Your task to perform on an android device: open wifi settings Image 0: 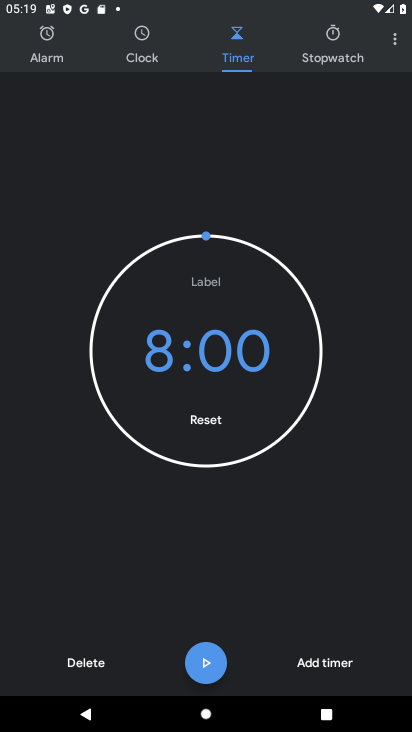
Step 0: click (115, 615)
Your task to perform on an android device: open wifi settings Image 1: 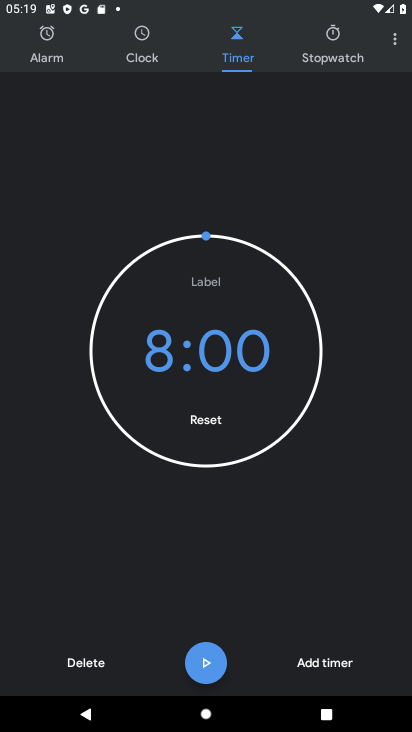
Step 1: press home button
Your task to perform on an android device: open wifi settings Image 2: 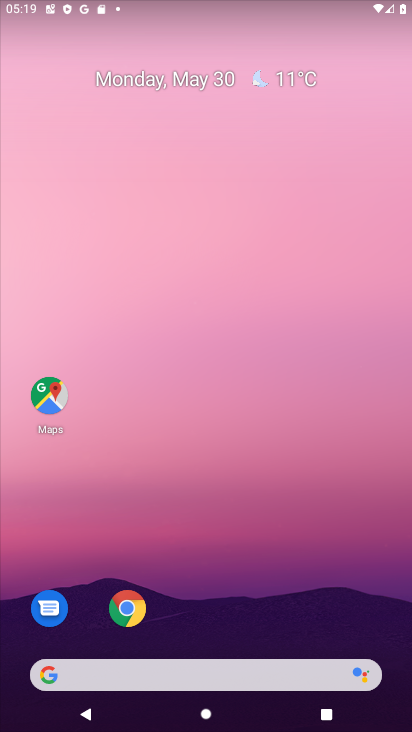
Step 2: drag from (205, 646) to (222, 252)
Your task to perform on an android device: open wifi settings Image 3: 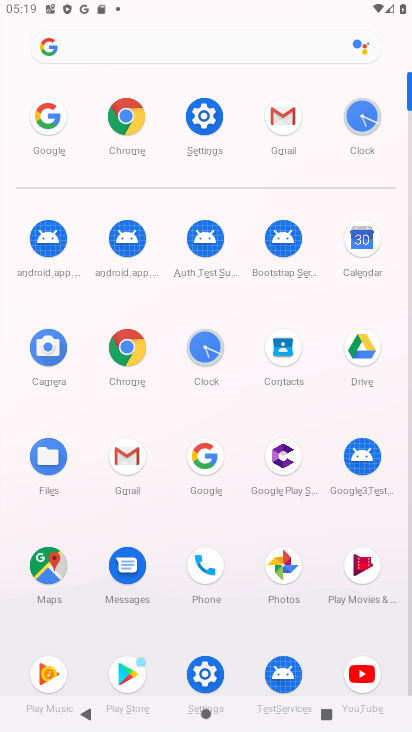
Step 3: click (214, 106)
Your task to perform on an android device: open wifi settings Image 4: 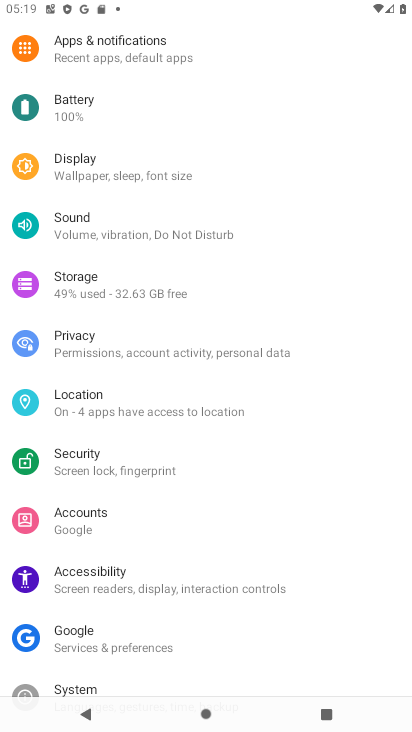
Step 4: drag from (143, 47) to (173, 525)
Your task to perform on an android device: open wifi settings Image 5: 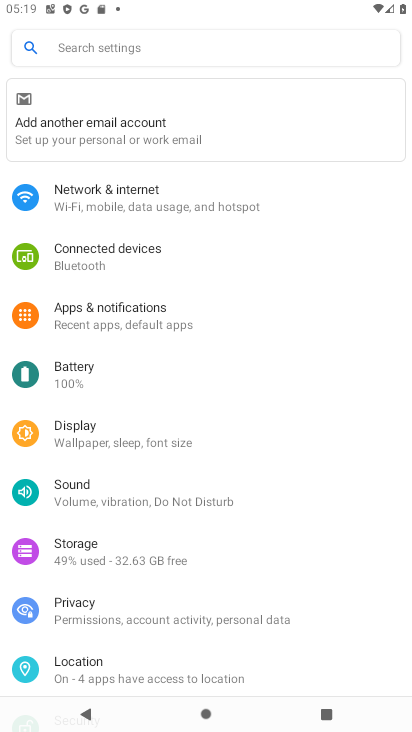
Step 5: click (135, 202)
Your task to perform on an android device: open wifi settings Image 6: 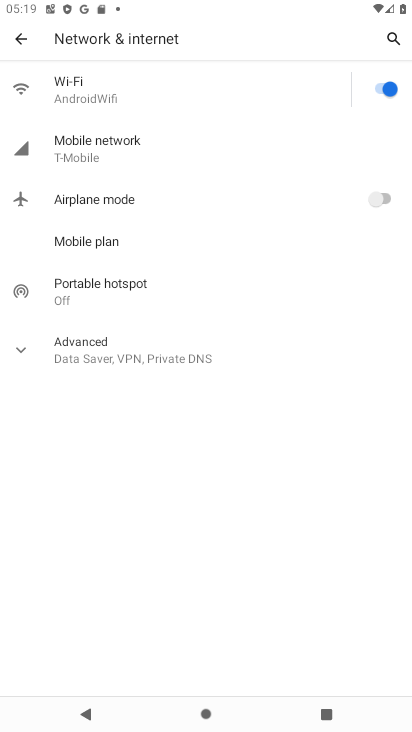
Step 6: click (120, 104)
Your task to perform on an android device: open wifi settings Image 7: 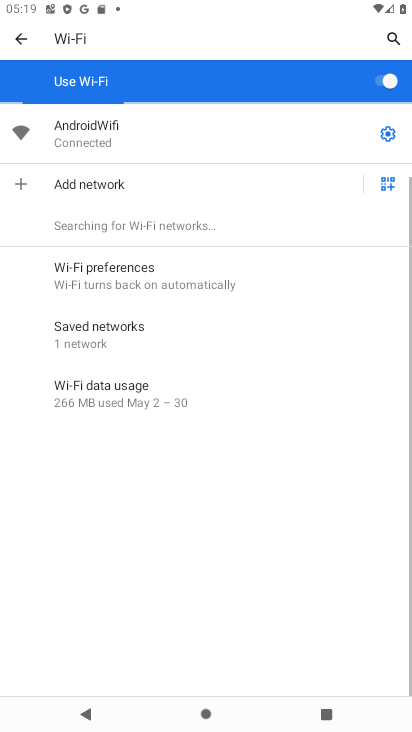
Step 7: click (387, 131)
Your task to perform on an android device: open wifi settings Image 8: 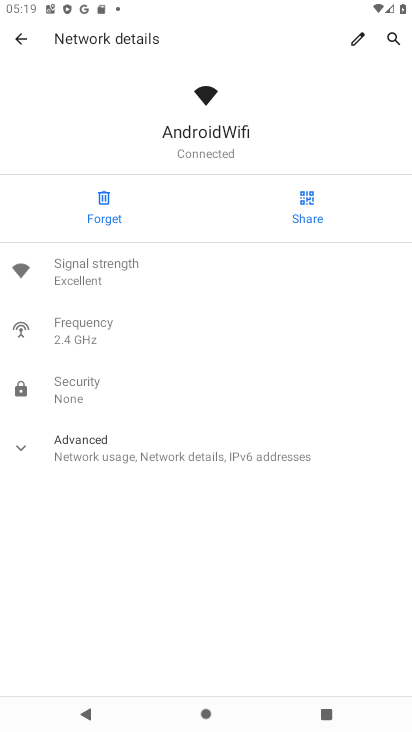
Step 8: click (128, 454)
Your task to perform on an android device: open wifi settings Image 9: 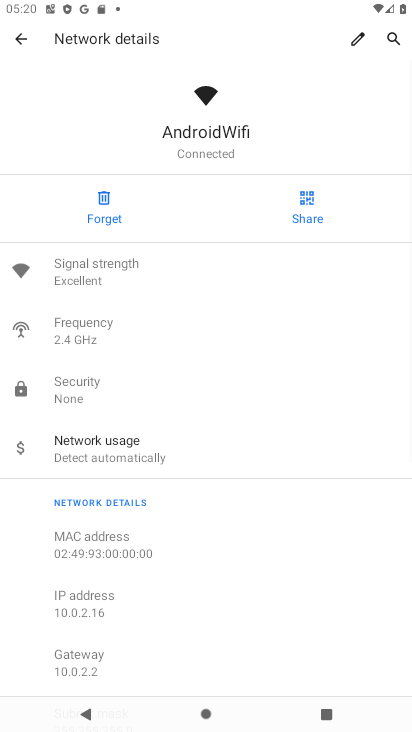
Step 9: task complete